Your task to perform on an android device: turn on priority inbox in the gmail app Image 0: 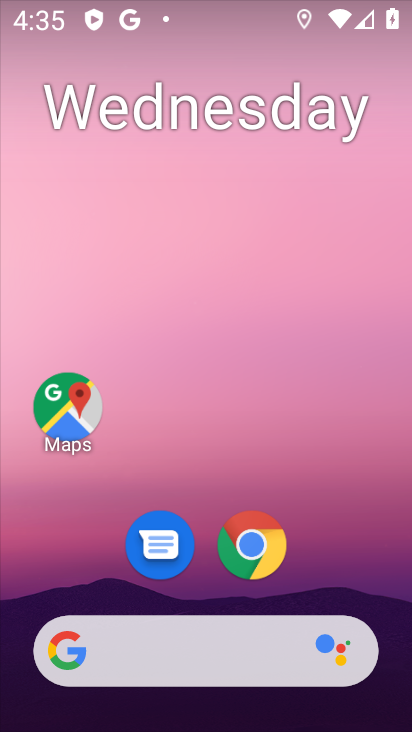
Step 0: drag from (216, 595) to (182, 39)
Your task to perform on an android device: turn on priority inbox in the gmail app Image 1: 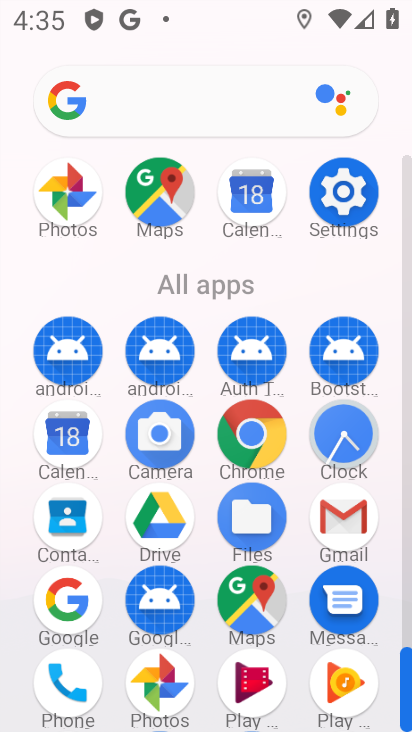
Step 1: click (350, 535)
Your task to perform on an android device: turn on priority inbox in the gmail app Image 2: 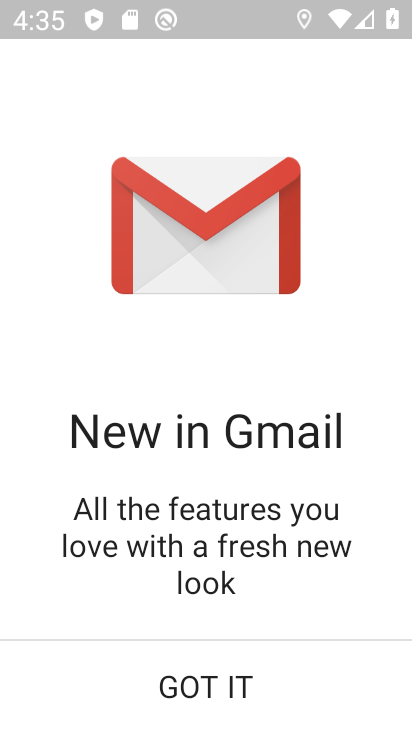
Step 2: click (261, 682)
Your task to perform on an android device: turn on priority inbox in the gmail app Image 3: 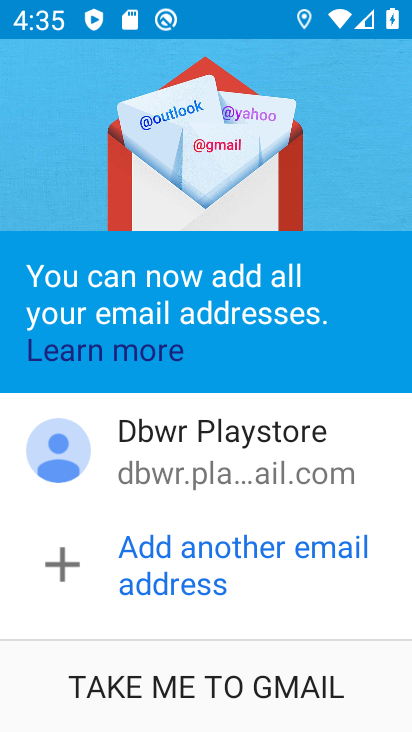
Step 3: click (254, 654)
Your task to perform on an android device: turn on priority inbox in the gmail app Image 4: 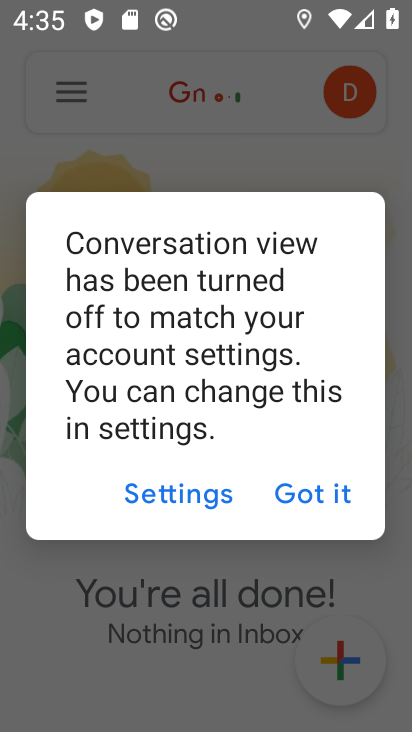
Step 4: click (320, 494)
Your task to perform on an android device: turn on priority inbox in the gmail app Image 5: 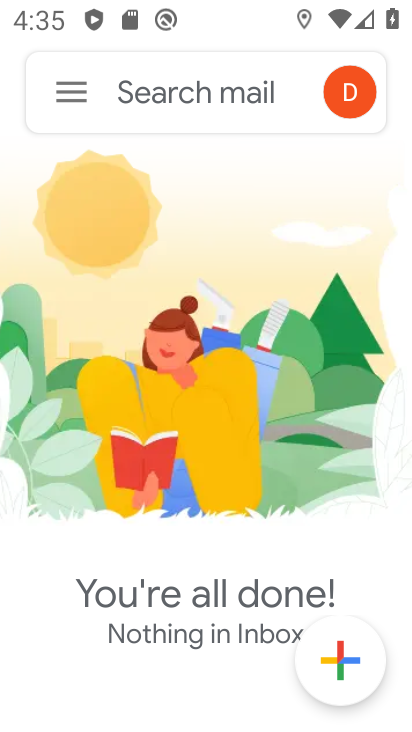
Step 5: click (70, 108)
Your task to perform on an android device: turn on priority inbox in the gmail app Image 6: 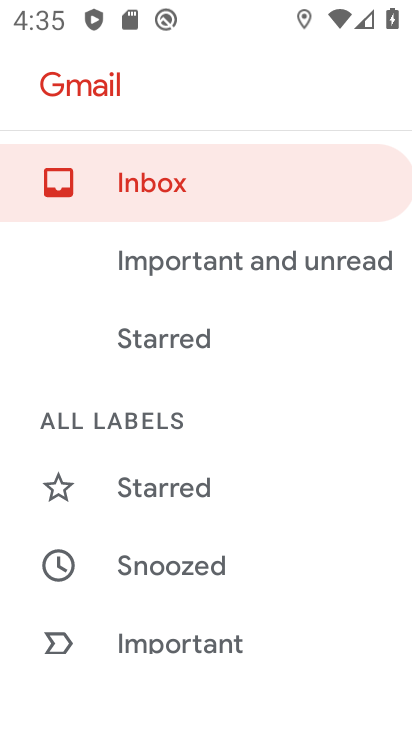
Step 6: drag from (213, 474) to (127, 10)
Your task to perform on an android device: turn on priority inbox in the gmail app Image 7: 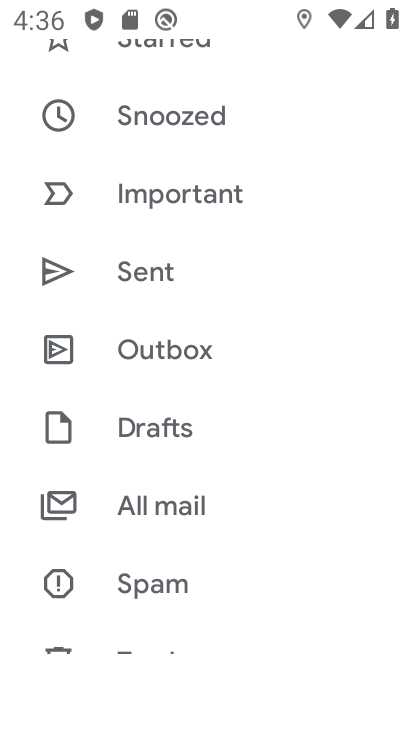
Step 7: drag from (178, 511) to (133, 159)
Your task to perform on an android device: turn on priority inbox in the gmail app Image 8: 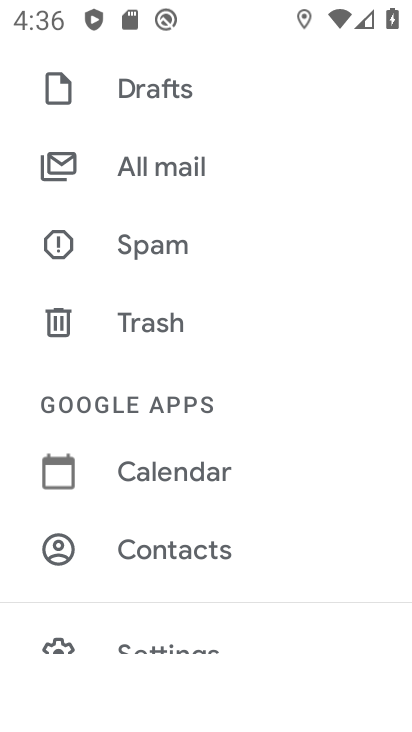
Step 8: drag from (215, 558) to (180, 163)
Your task to perform on an android device: turn on priority inbox in the gmail app Image 9: 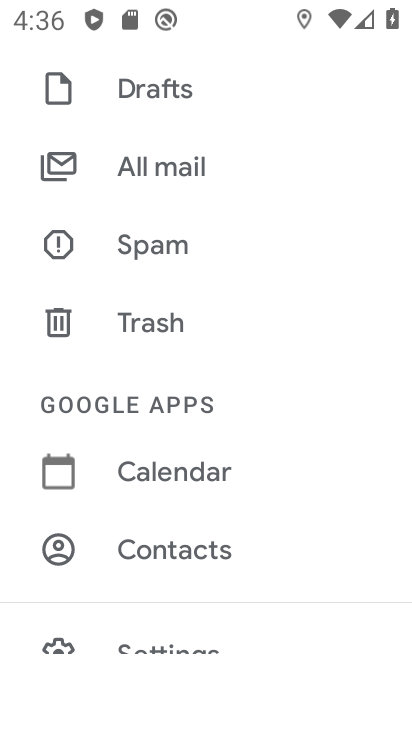
Step 9: drag from (164, 550) to (159, 219)
Your task to perform on an android device: turn on priority inbox in the gmail app Image 10: 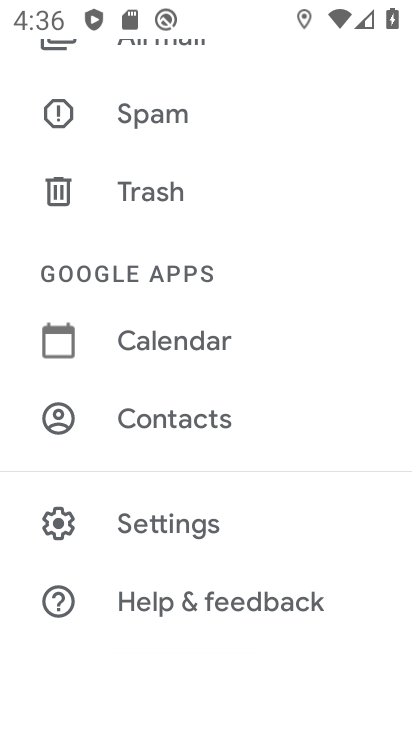
Step 10: click (185, 525)
Your task to perform on an android device: turn on priority inbox in the gmail app Image 11: 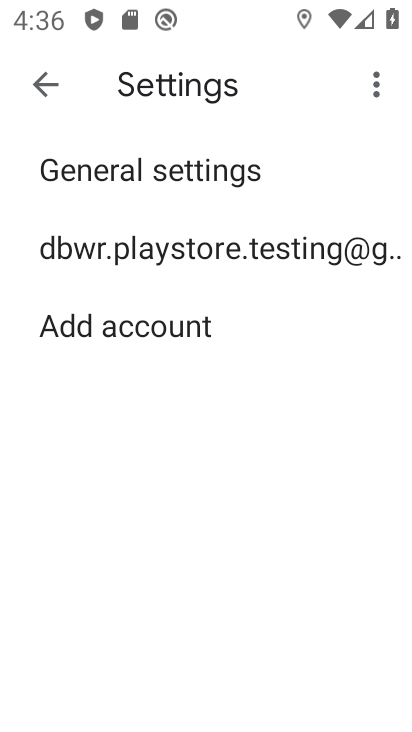
Step 11: click (137, 262)
Your task to perform on an android device: turn on priority inbox in the gmail app Image 12: 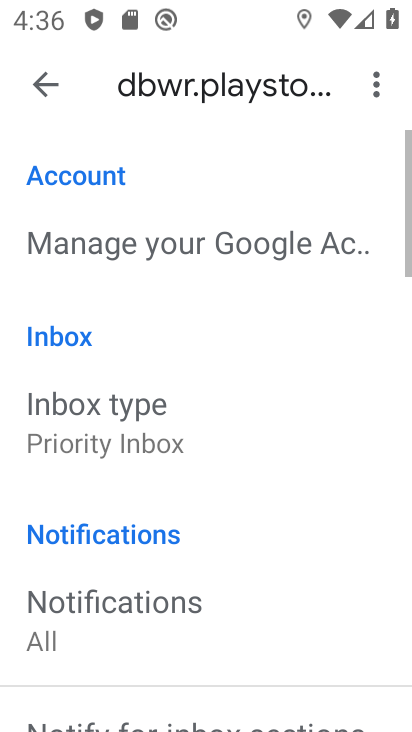
Step 12: click (149, 415)
Your task to perform on an android device: turn on priority inbox in the gmail app Image 13: 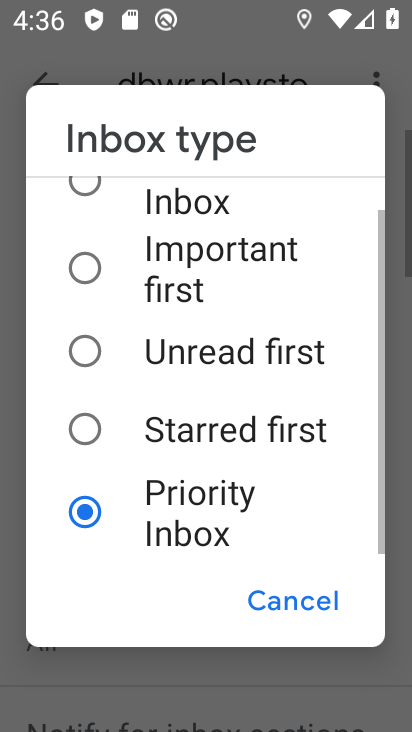
Step 13: click (177, 495)
Your task to perform on an android device: turn on priority inbox in the gmail app Image 14: 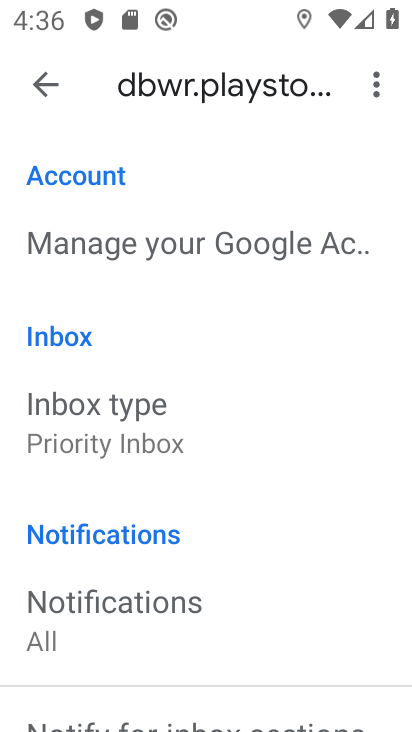
Step 14: task complete